Your task to perform on an android device: turn on bluetooth scan Image 0: 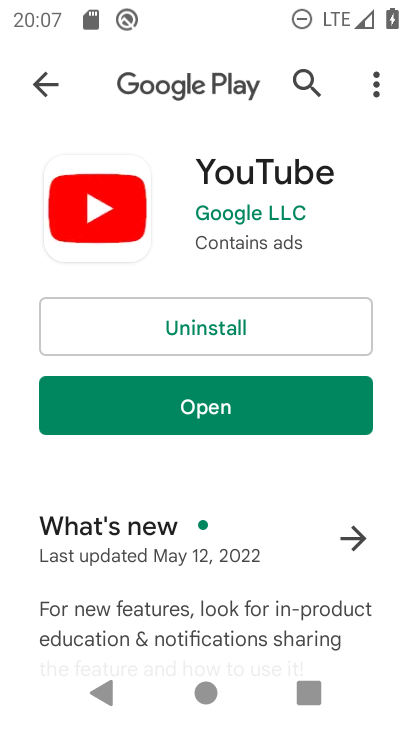
Step 0: press home button
Your task to perform on an android device: turn on bluetooth scan Image 1: 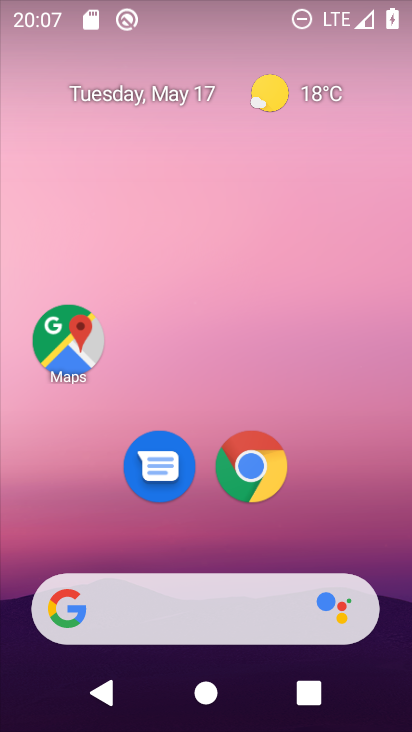
Step 1: drag from (234, 611) to (336, 159)
Your task to perform on an android device: turn on bluetooth scan Image 2: 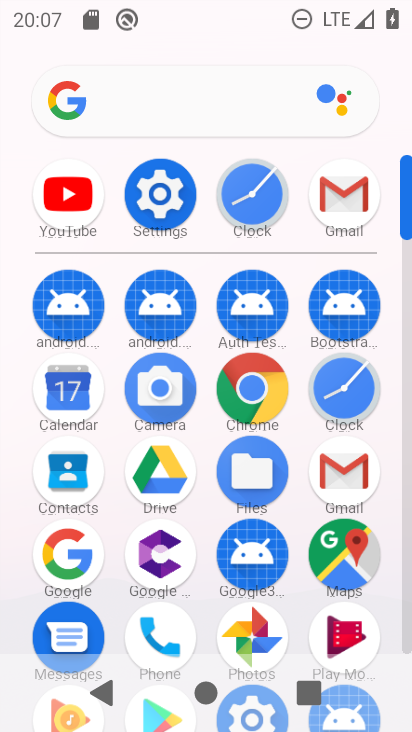
Step 2: click (175, 204)
Your task to perform on an android device: turn on bluetooth scan Image 3: 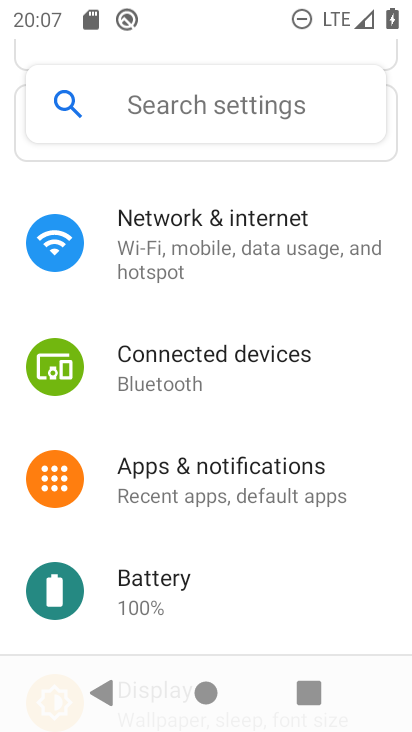
Step 3: drag from (238, 616) to (365, 100)
Your task to perform on an android device: turn on bluetooth scan Image 4: 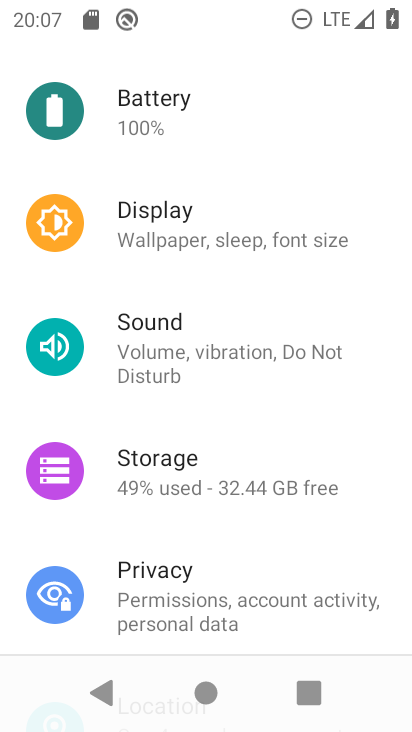
Step 4: drag from (235, 556) to (332, 123)
Your task to perform on an android device: turn on bluetooth scan Image 5: 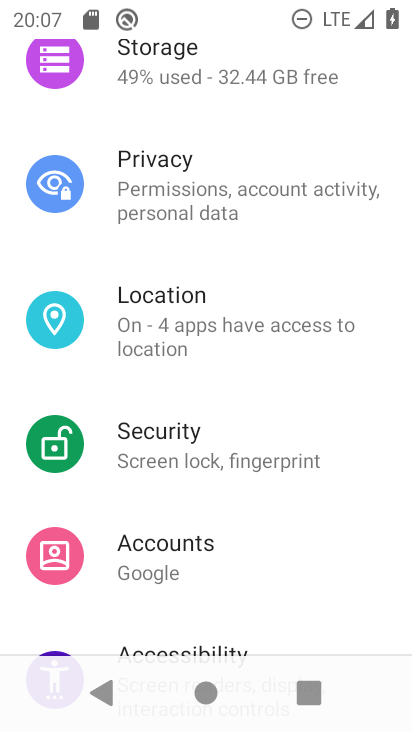
Step 5: click (198, 299)
Your task to perform on an android device: turn on bluetooth scan Image 6: 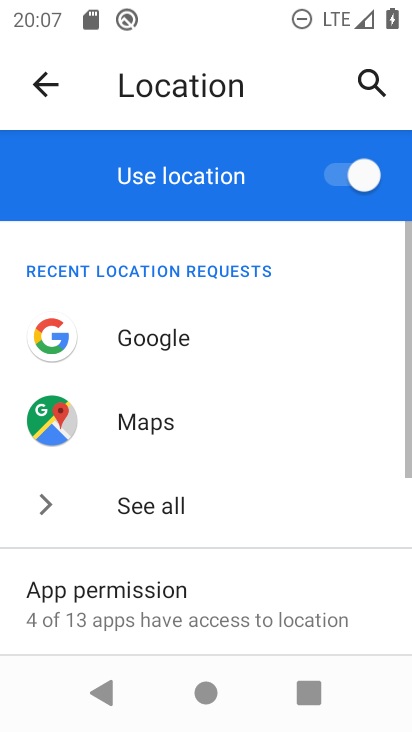
Step 6: drag from (209, 584) to (318, 202)
Your task to perform on an android device: turn on bluetooth scan Image 7: 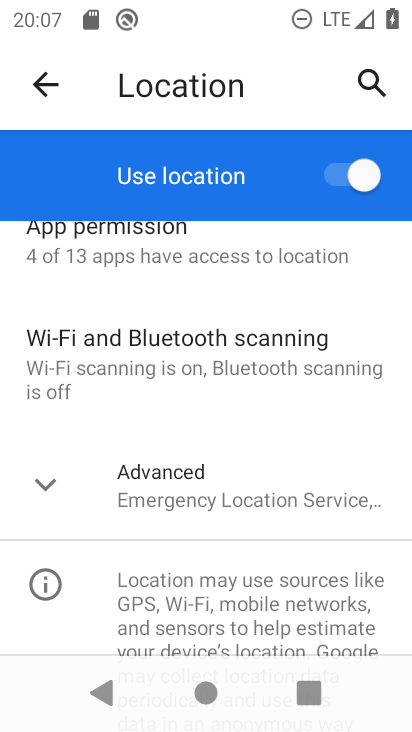
Step 7: click (238, 344)
Your task to perform on an android device: turn on bluetooth scan Image 8: 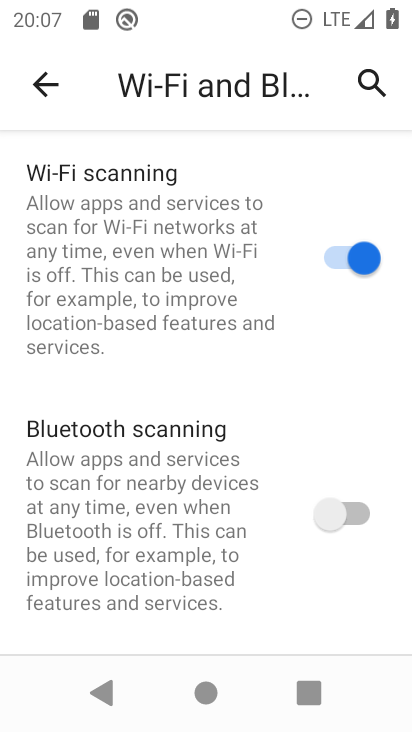
Step 8: click (348, 510)
Your task to perform on an android device: turn on bluetooth scan Image 9: 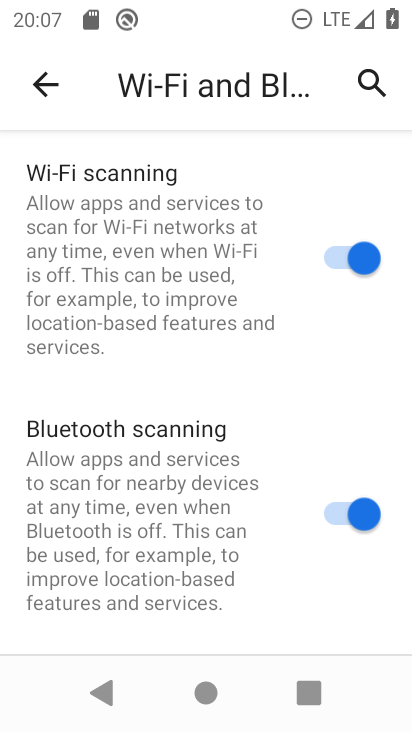
Step 9: task complete